Your task to perform on an android device: Go to notification settings Image 0: 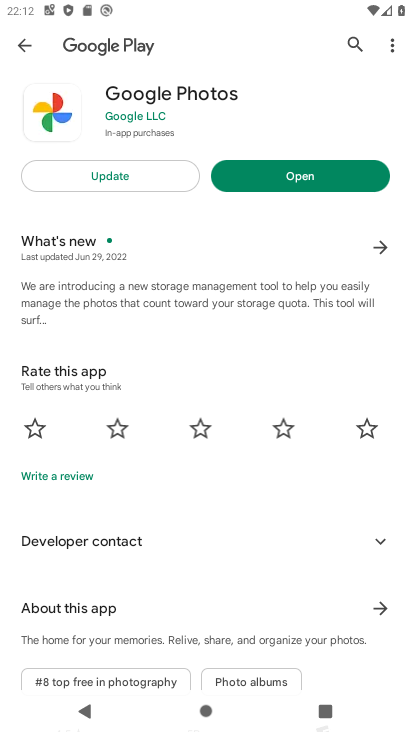
Step 0: press back button
Your task to perform on an android device: Go to notification settings Image 1: 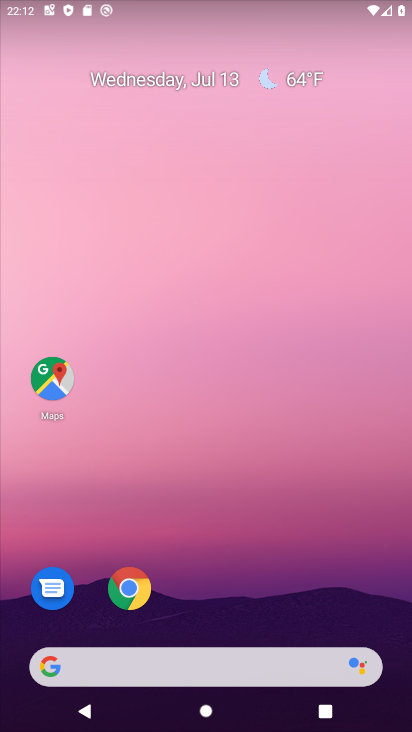
Step 1: drag from (249, 567) to (332, 26)
Your task to perform on an android device: Go to notification settings Image 2: 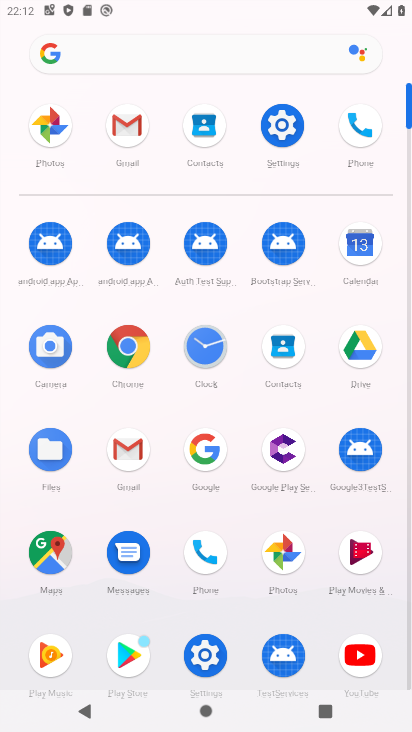
Step 2: click (294, 124)
Your task to perform on an android device: Go to notification settings Image 3: 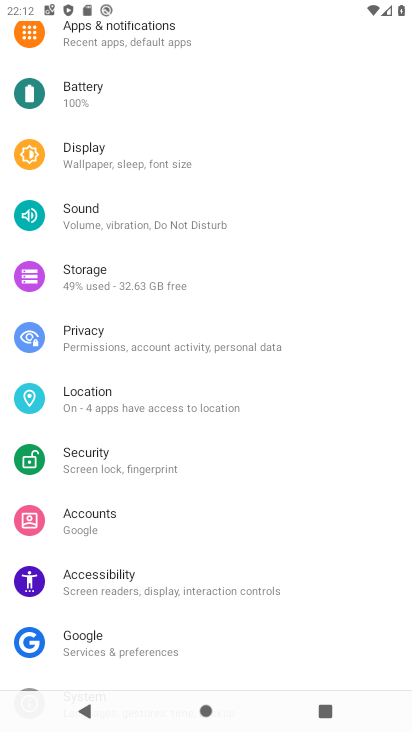
Step 3: click (142, 31)
Your task to perform on an android device: Go to notification settings Image 4: 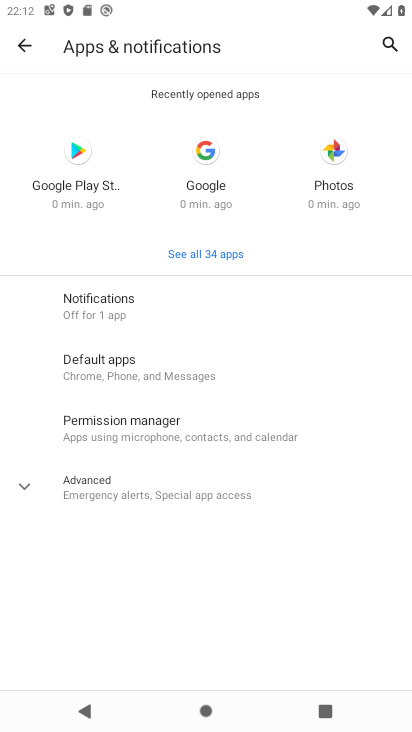
Step 4: task complete